Your task to perform on an android device: Go to battery settings Image 0: 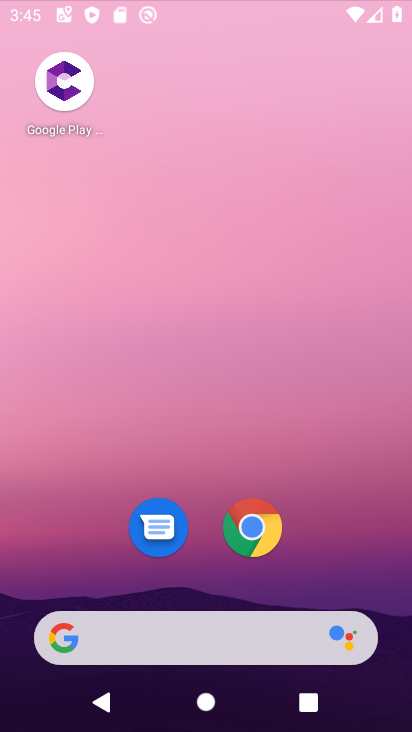
Step 0: click (324, 454)
Your task to perform on an android device: Go to battery settings Image 1: 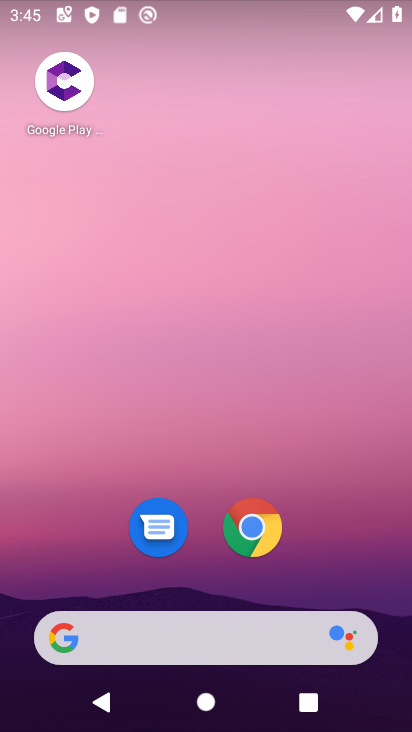
Step 1: drag from (229, 591) to (260, 18)
Your task to perform on an android device: Go to battery settings Image 2: 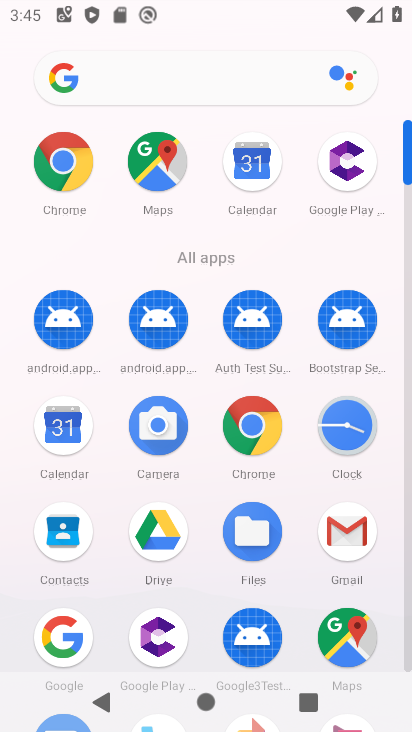
Step 2: drag from (200, 649) to (164, 125)
Your task to perform on an android device: Go to battery settings Image 3: 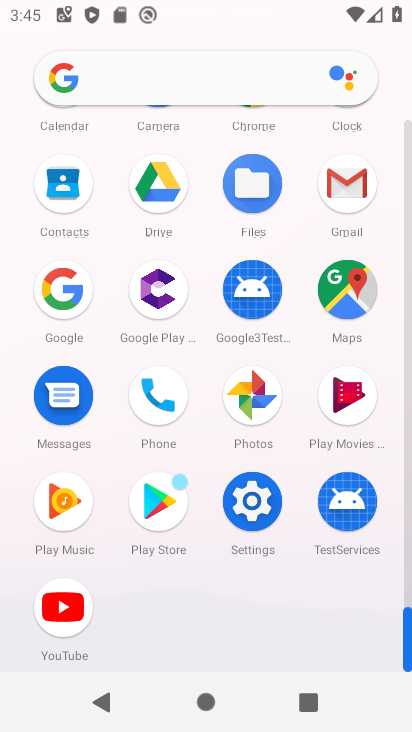
Step 3: click (242, 519)
Your task to perform on an android device: Go to battery settings Image 4: 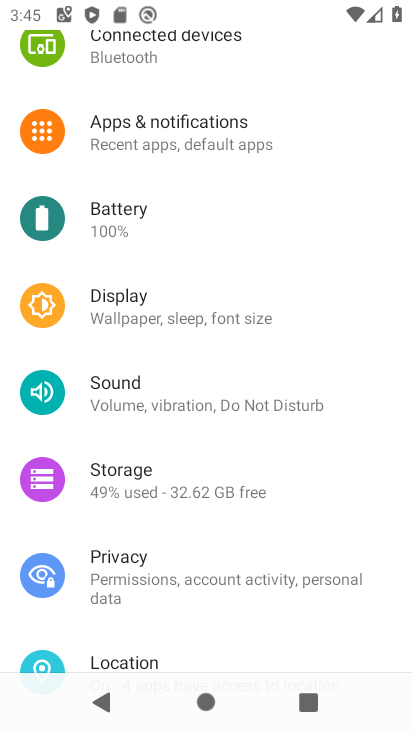
Step 4: drag from (217, 556) to (201, 320)
Your task to perform on an android device: Go to battery settings Image 5: 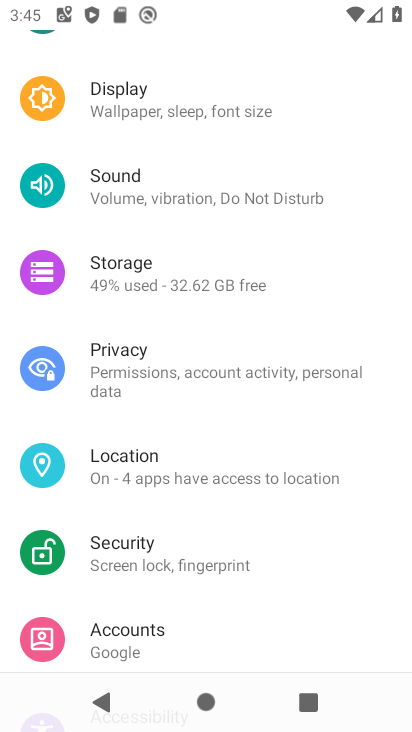
Step 5: drag from (235, 637) to (150, 78)
Your task to perform on an android device: Go to battery settings Image 6: 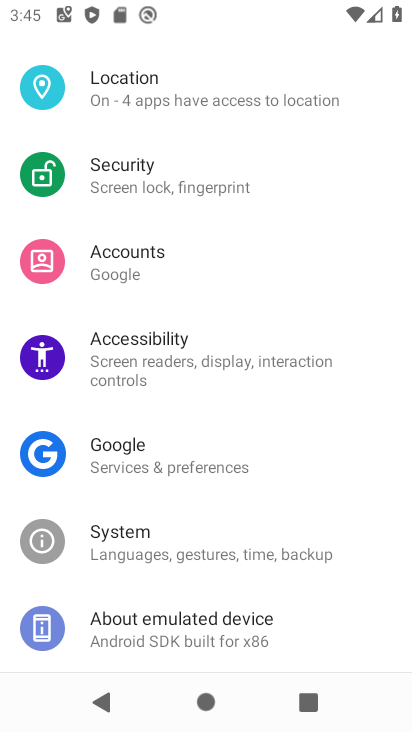
Step 6: drag from (140, 142) to (135, 523)
Your task to perform on an android device: Go to battery settings Image 7: 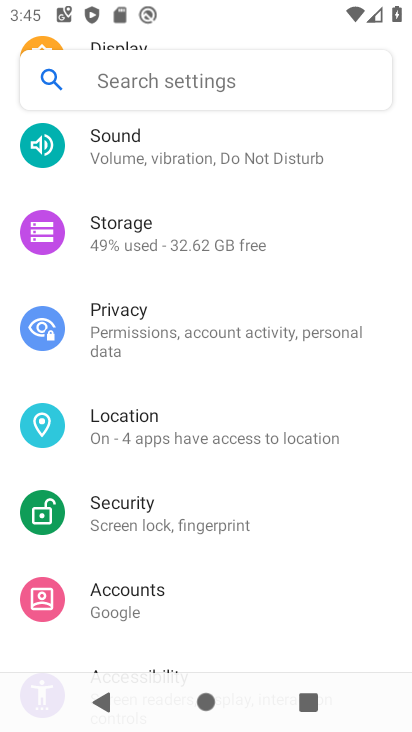
Step 7: drag from (132, 173) to (124, 463)
Your task to perform on an android device: Go to battery settings Image 8: 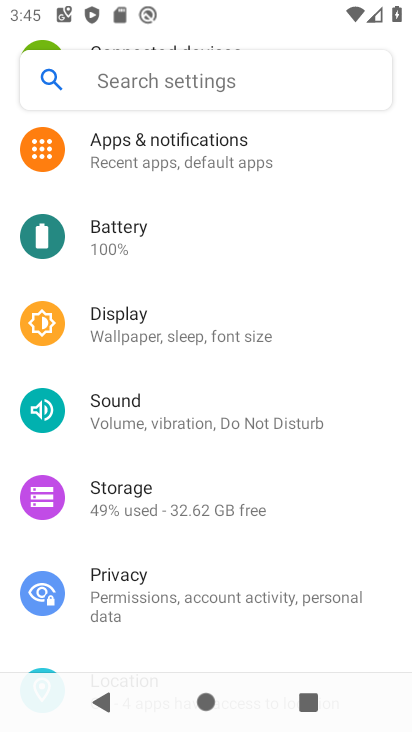
Step 8: click (125, 229)
Your task to perform on an android device: Go to battery settings Image 9: 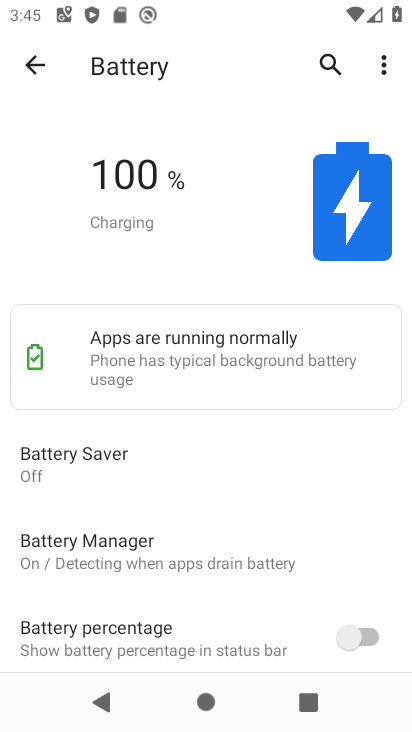
Step 9: task complete